Your task to perform on an android device: Open Chrome and go to settings Image 0: 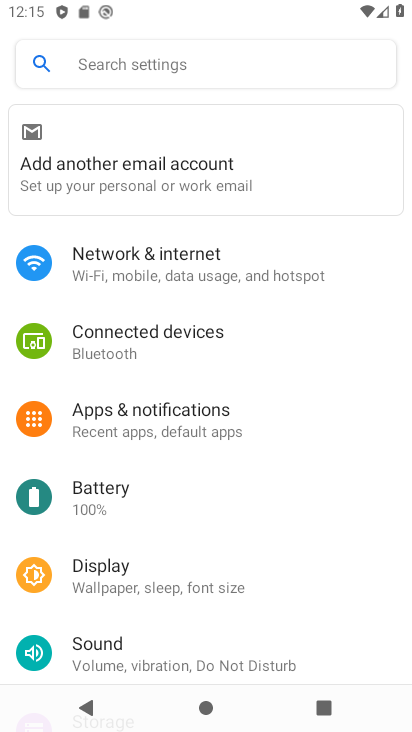
Step 0: press home button
Your task to perform on an android device: Open Chrome and go to settings Image 1: 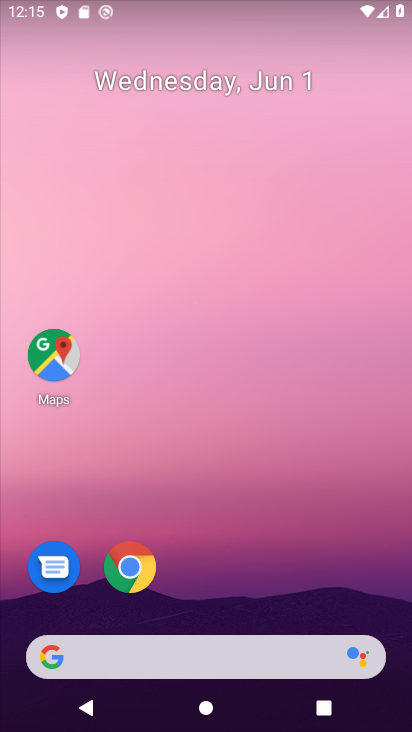
Step 1: click (128, 571)
Your task to perform on an android device: Open Chrome and go to settings Image 2: 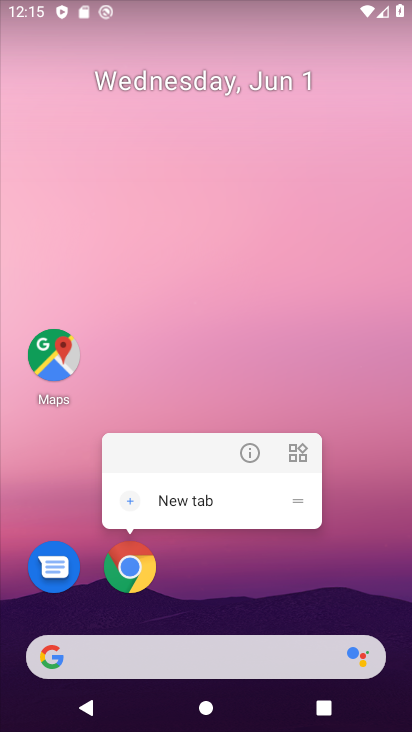
Step 2: click (137, 573)
Your task to perform on an android device: Open Chrome and go to settings Image 3: 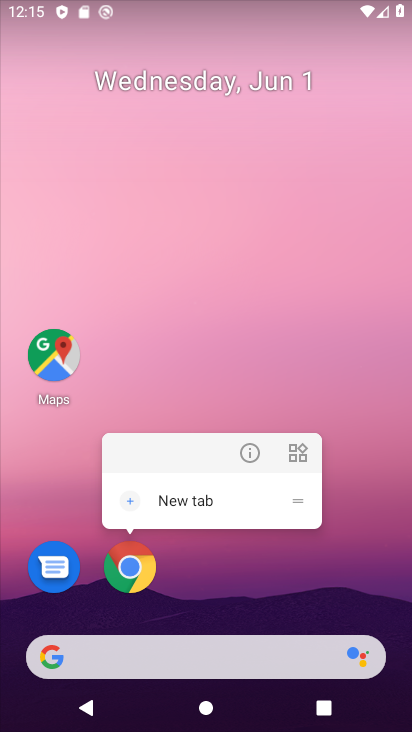
Step 3: click (137, 573)
Your task to perform on an android device: Open Chrome and go to settings Image 4: 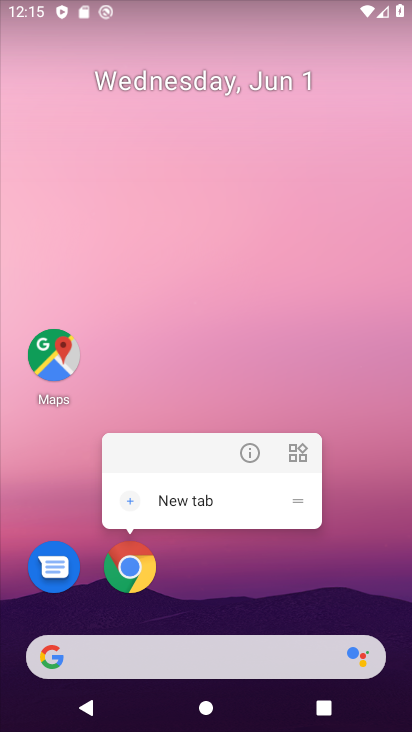
Step 4: click (137, 573)
Your task to perform on an android device: Open Chrome and go to settings Image 5: 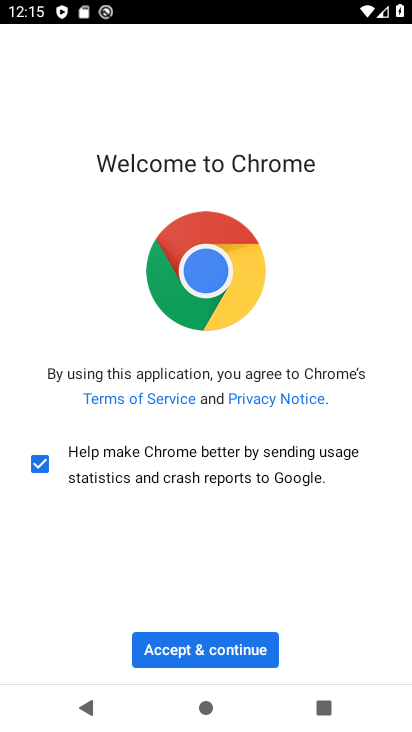
Step 5: click (212, 656)
Your task to perform on an android device: Open Chrome and go to settings Image 6: 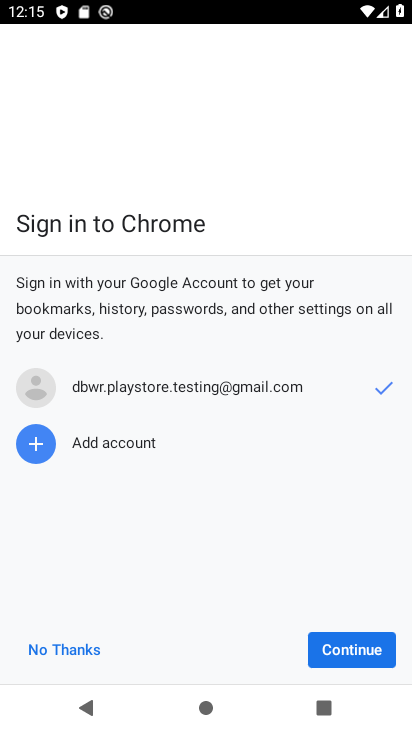
Step 6: click (327, 662)
Your task to perform on an android device: Open Chrome and go to settings Image 7: 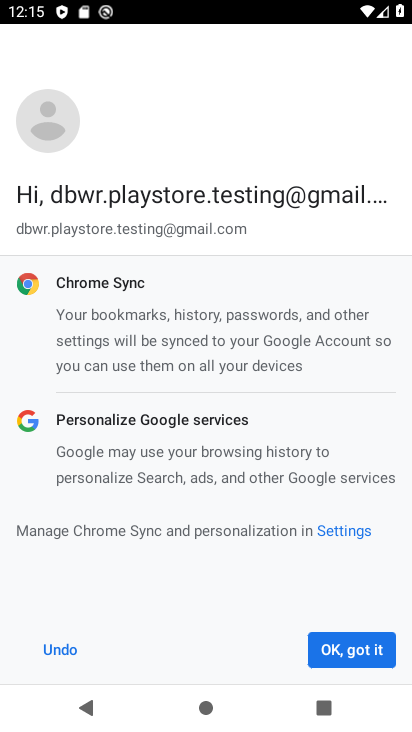
Step 7: click (327, 662)
Your task to perform on an android device: Open Chrome and go to settings Image 8: 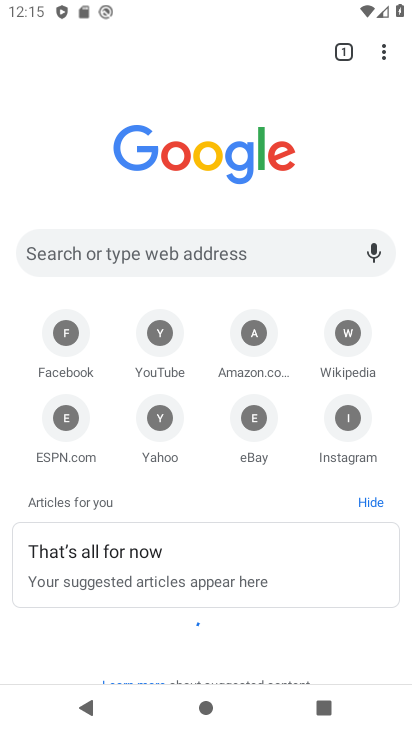
Step 8: click (373, 53)
Your task to perform on an android device: Open Chrome and go to settings Image 9: 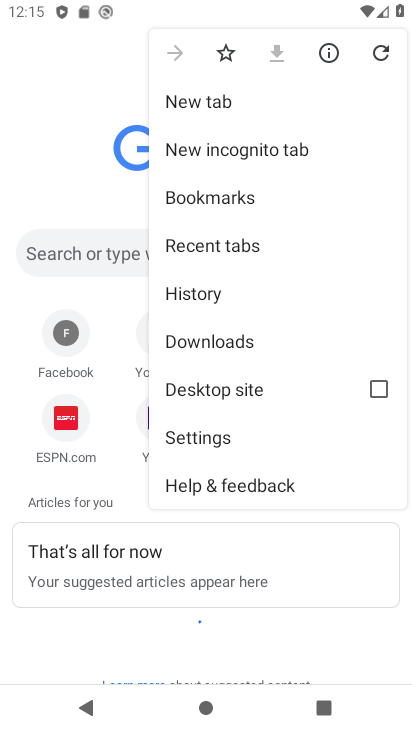
Step 9: click (220, 441)
Your task to perform on an android device: Open Chrome and go to settings Image 10: 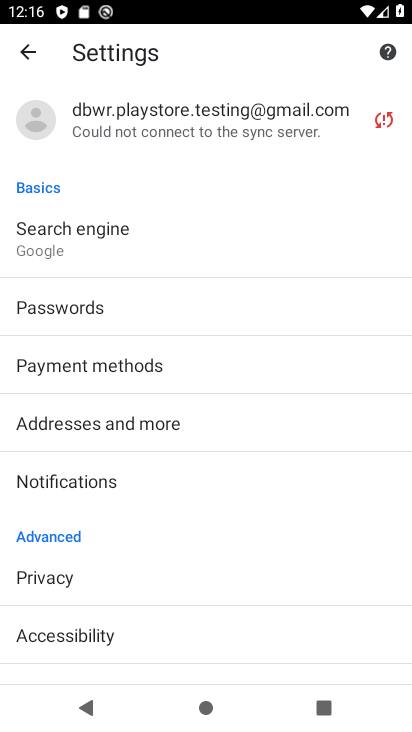
Step 10: task complete